Your task to perform on an android device: turn pop-ups off in chrome Image 0: 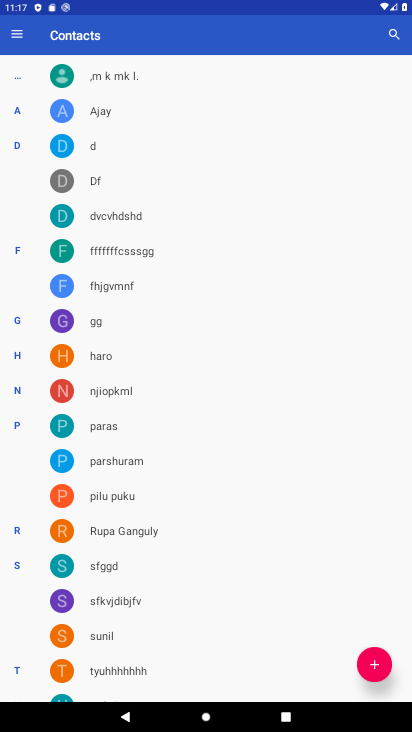
Step 0: press home button
Your task to perform on an android device: turn pop-ups off in chrome Image 1: 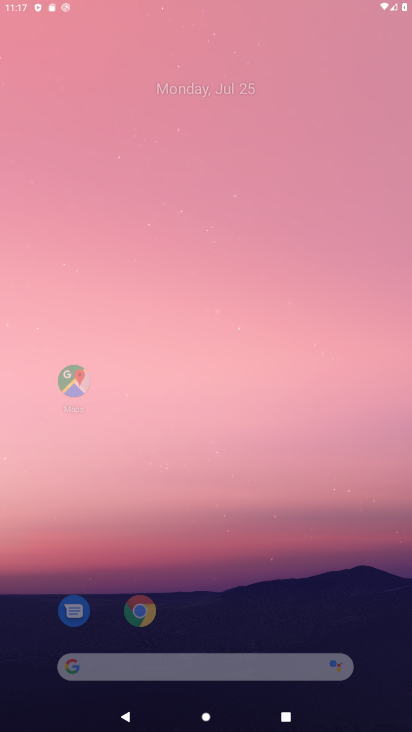
Step 1: drag from (206, 611) to (280, 182)
Your task to perform on an android device: turn pop-ups off in chrome Image 2: 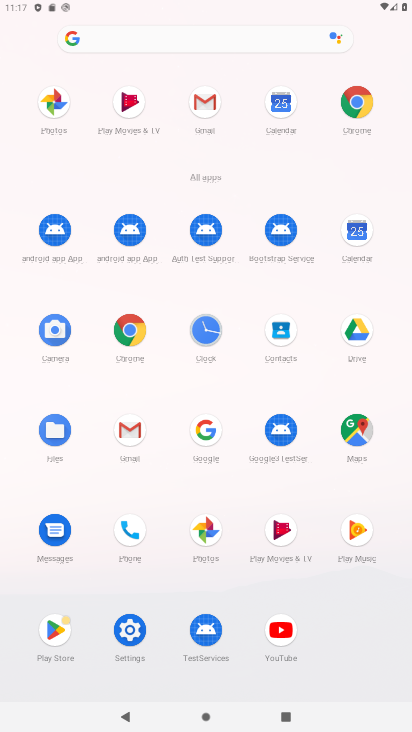
Step 2: click (130, 326)
Your task to perform on an android device: turn pop-ups off in chrome Image 3: 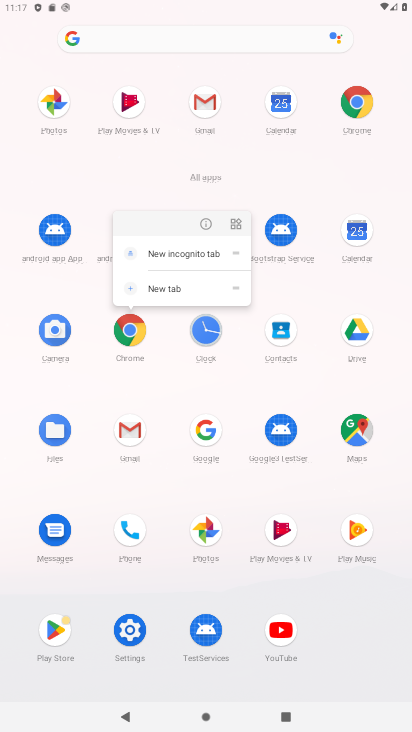
Step 3: click (203, 219)
Your task to perform on an android device: turn pop-ups off in chrome Image 4: 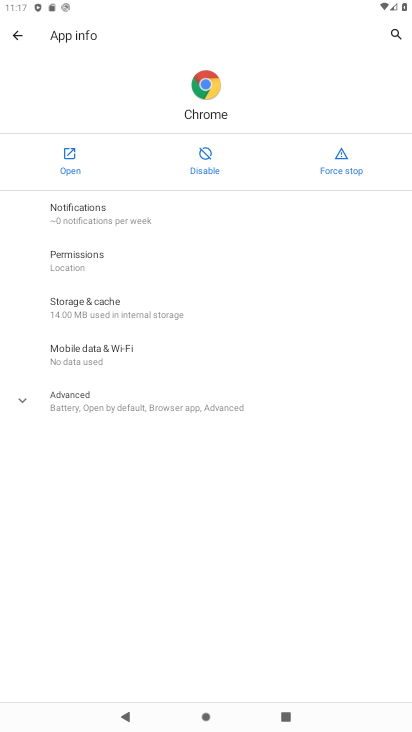
Step 4: click (74, 158)
Your task to perform on an android device: turn pop-ups off in chrome Image 5: 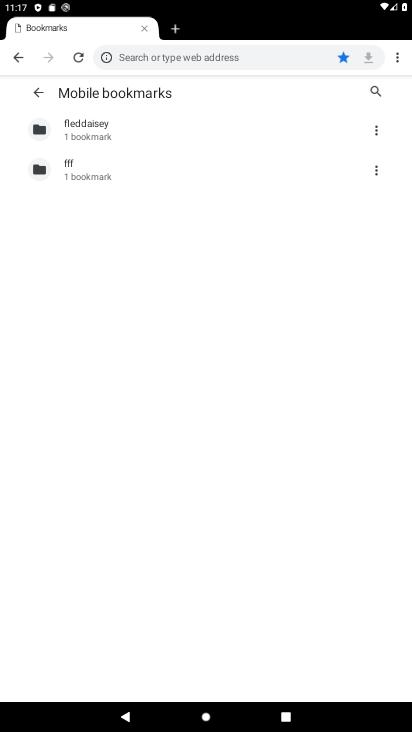
Step 5: drag from (396, 54) to (296, 259)
Your task to perform on an android device: turn pop-ups off in chrome Image 6: 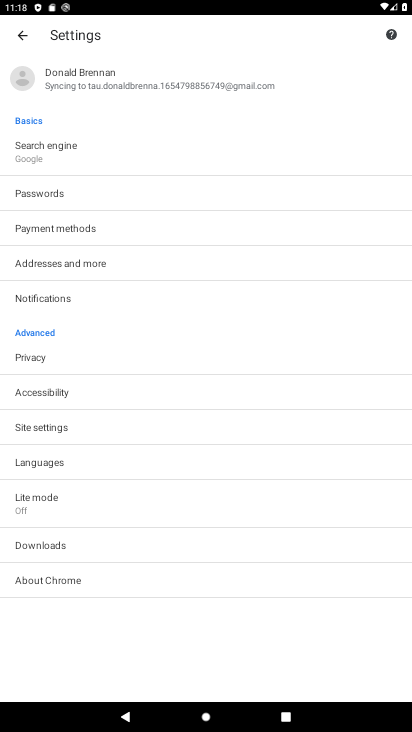
Step 6: click (105, 421)
Your task to perform on an android device: turn pop-ups off in chrome Image 7: 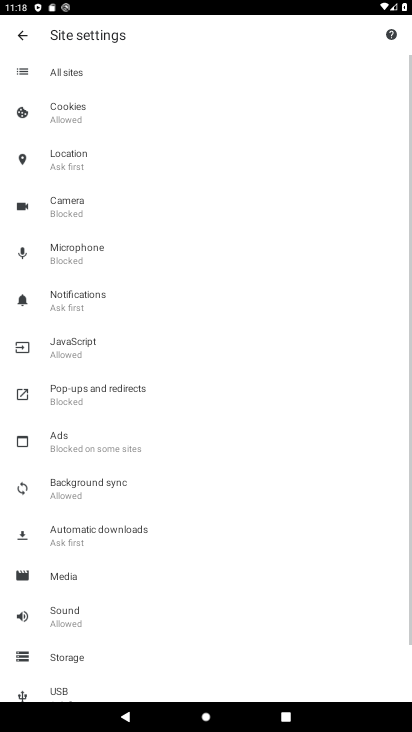
Step 7: click (134, 392)
Your task to perform on an android device: turn pop-ups off in chrome Image 8: 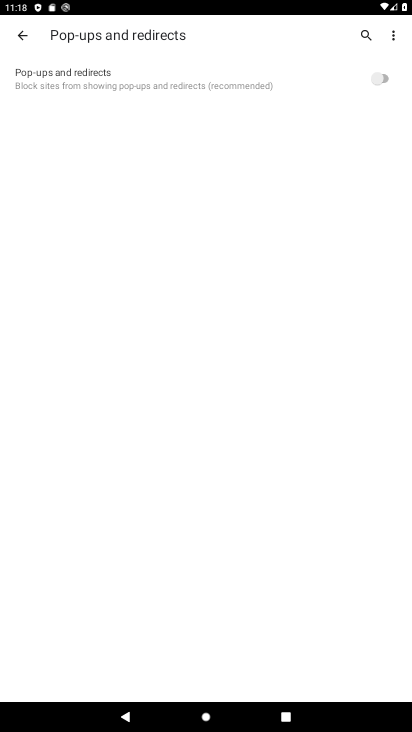
Step 8: task complete